Your task to perform on an android device: Is it going to rain tomorrow? Image 0: 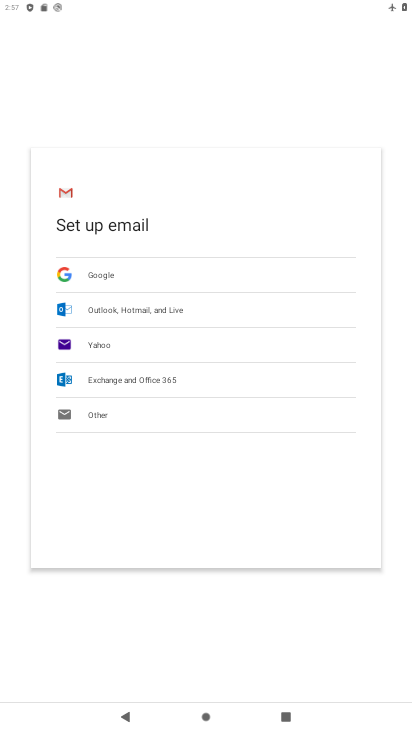
Step 0: press home button
Your task to perform on an android device: Is it going to rain tomorrow? Image 1: 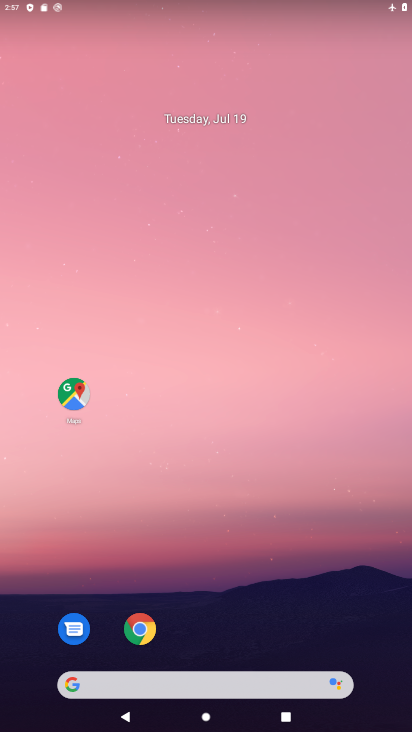
Step 1: click (140, 625)
Your task to perform on an android device: Is it going to rain tomorrow? Image 2: 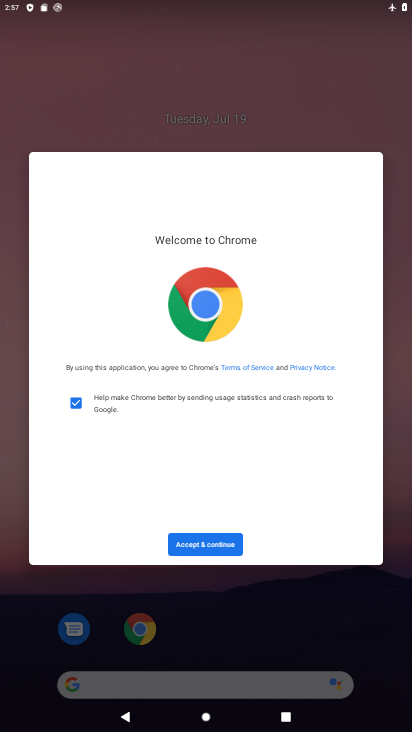
Step 2: click (209, 550)
Your task to perform on an android device: Is it going to rain tomorrow? Image 3: 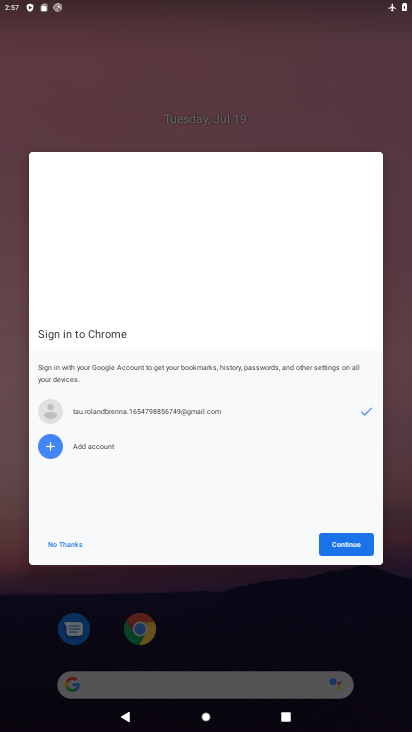
Step 3: click (335, 545)
Your task to perform on an android device: Is it going to rain tomorrow? Image 4: 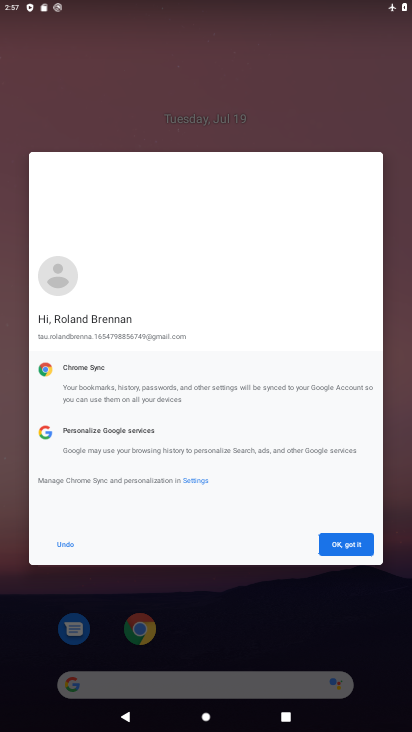
Step 4: click (335, 545)
Your task to perform on an android device: Is it going to rain tomorrow? Image 5: 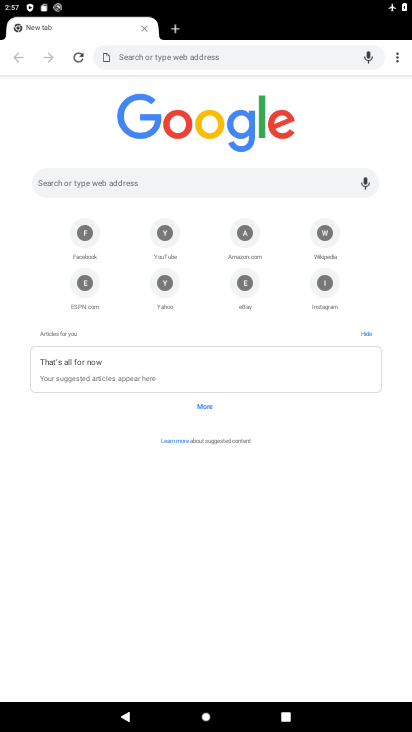
Step 5: click (222, 60)
Your task to perform on an android device: Is it going to rain tomorrow? Image 6: 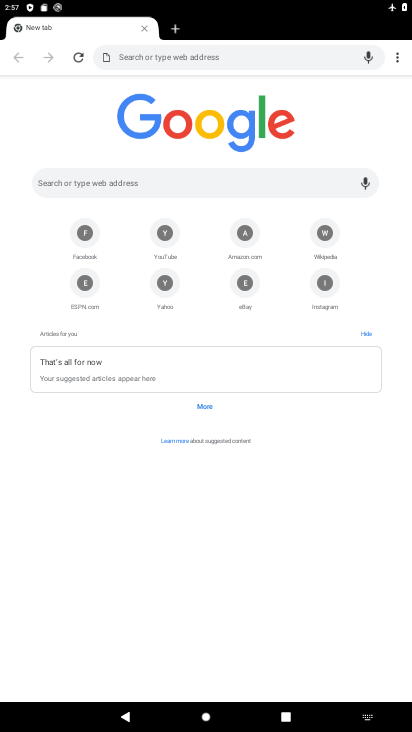
Step 6: type "Is it going to rain tomorrow?"
Your task to perform on an android device: Is it going to rain tomorrow? Image 7: 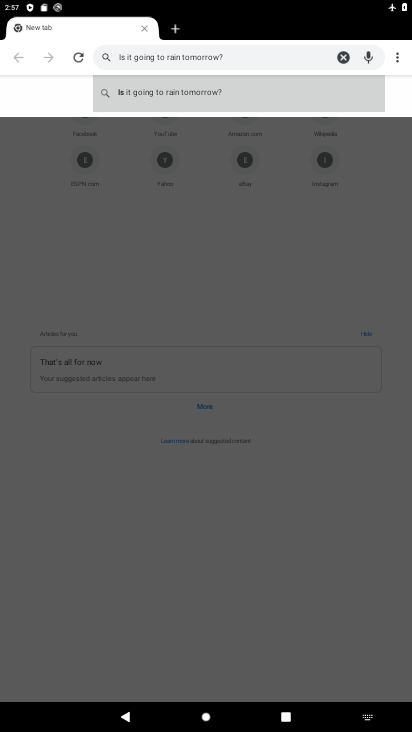
Step 7: click (306, 95)
Your task to perform on an android device: Is it going to rain tomorrow? Image 8: 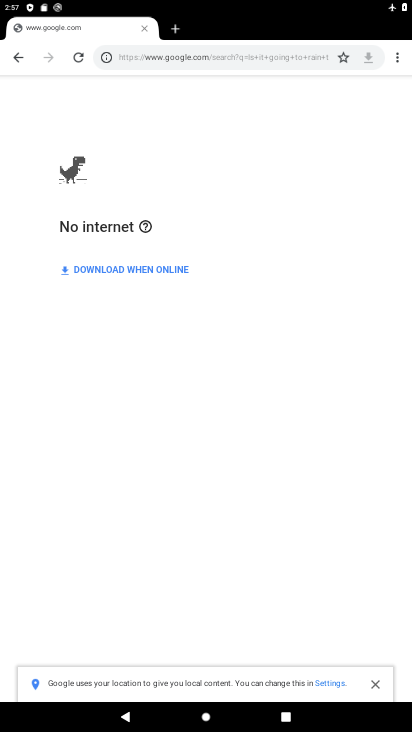
Step 8: click (313, 149)
Your task to perform on an android device: Is it going to rain tomorrow? Image 9: 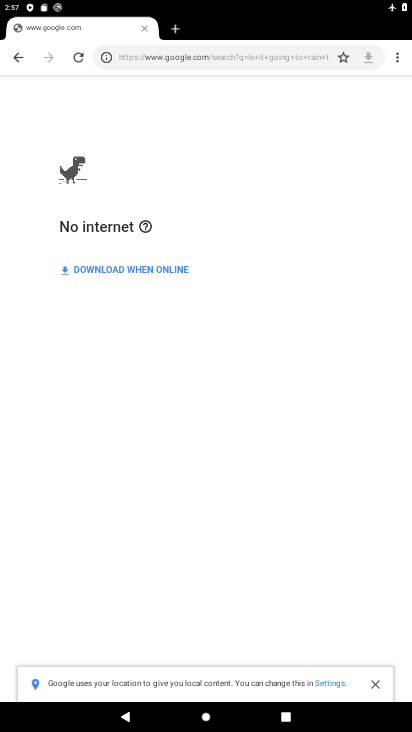
Step 9: task complete